Your task to perform on an android device: add a contact Image 0: 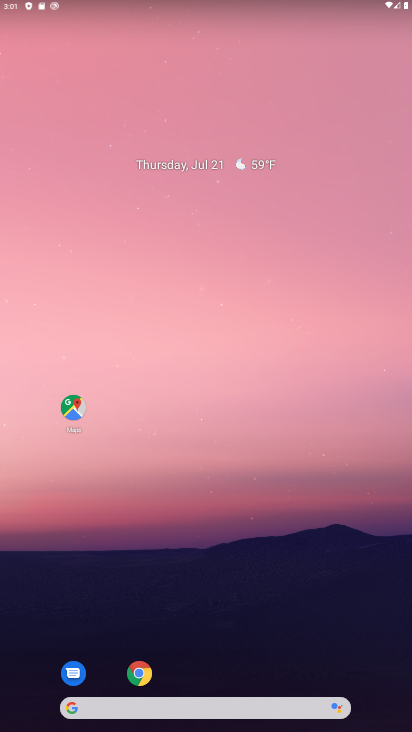
Step 0: drag from (331, 649) to (191, 38)
Your task to perform on an android device: add a contact Image 1: 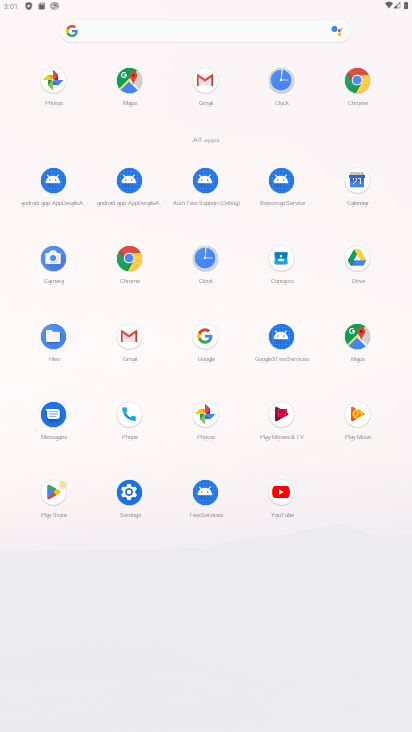
Step 1: click (290, 256)
Your task to perform on an android device: add a contact Image 2: 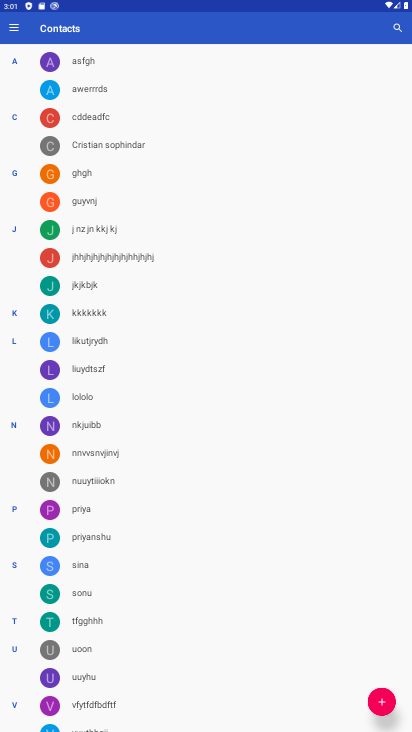
Step 2: click (381, 707)
Your task to perform on an android device: add a contact Image 3: 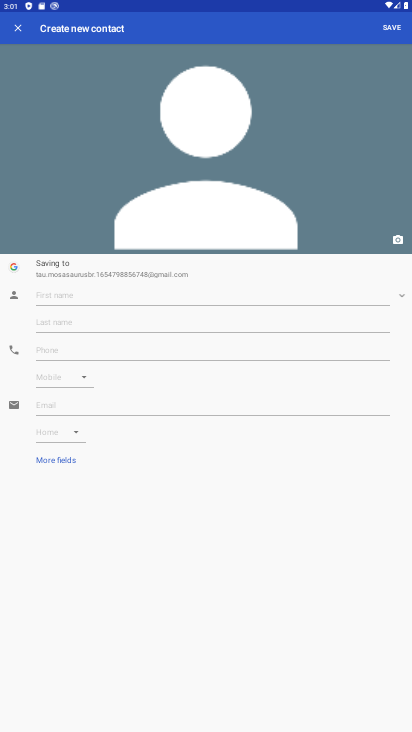
Step 3: click (203, 297)
Your task to perform on an android device: add a contact Image 4: 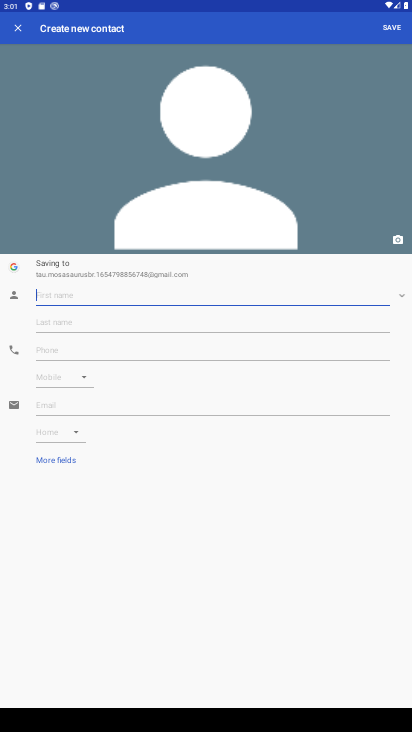
Step 4: type "bbjhbjhb"
Your task to perform on an android device: add a contact Image 5: 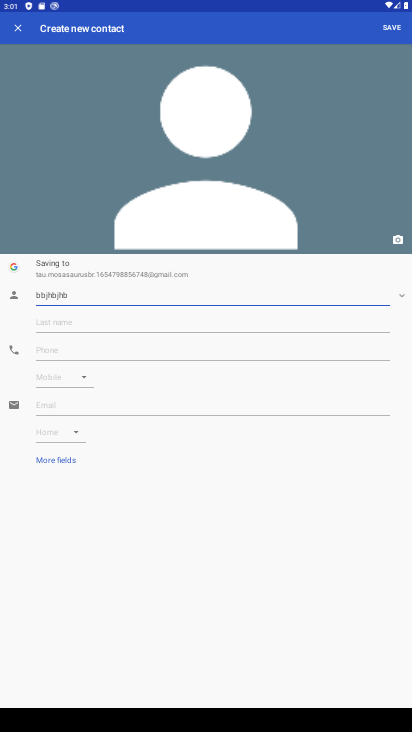
Step 5: click (324, 344)
Your task to perform on an android device: add a contact Image 6: 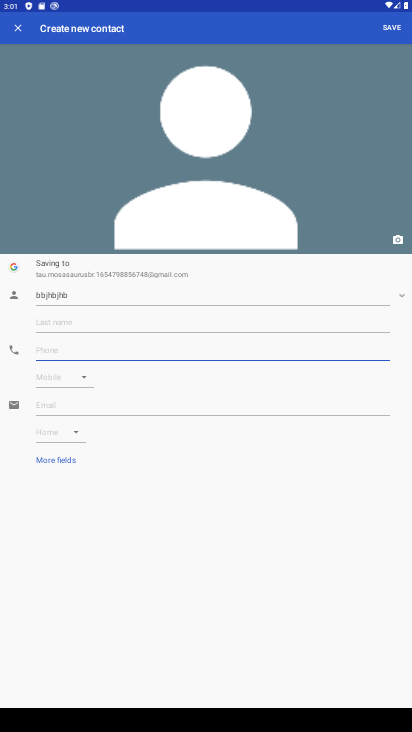
Step 6: type "76767878"
Your task to perform on an android device: add a contact Image 7: 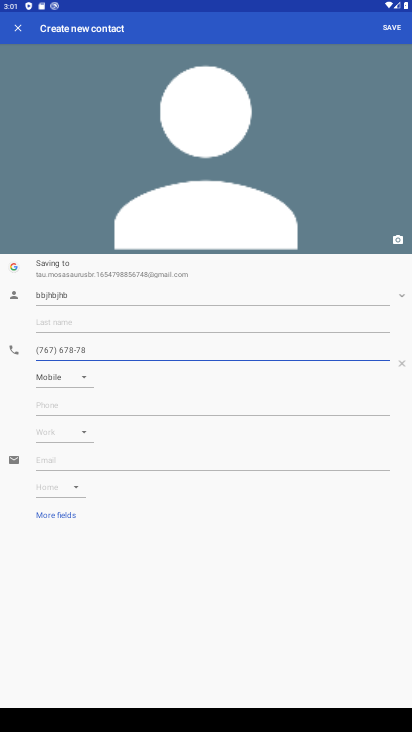
Step 7: click (391, 24)
Your task to perform on an android device: add a contact Image 8: 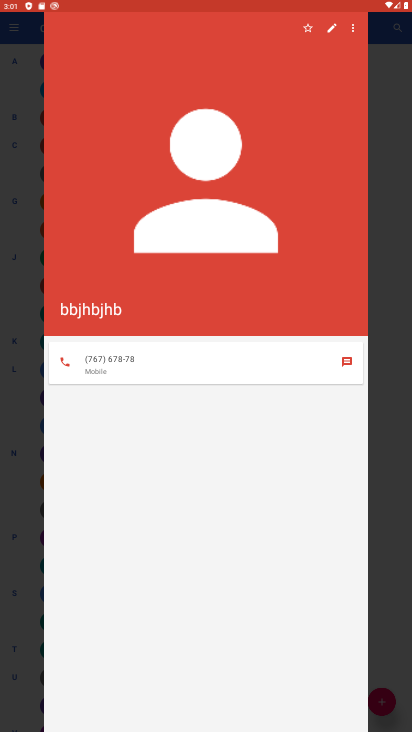
Step 8: task complete